Your task to perform on an android device: Go to location settings Image 0: 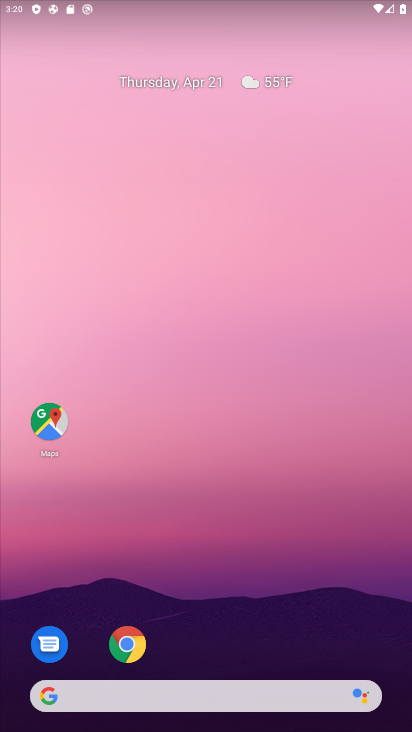
Step 0: drag from (215, 669) to (127, 70)
Your task to perform on an android device: Go to location settings Image 1: 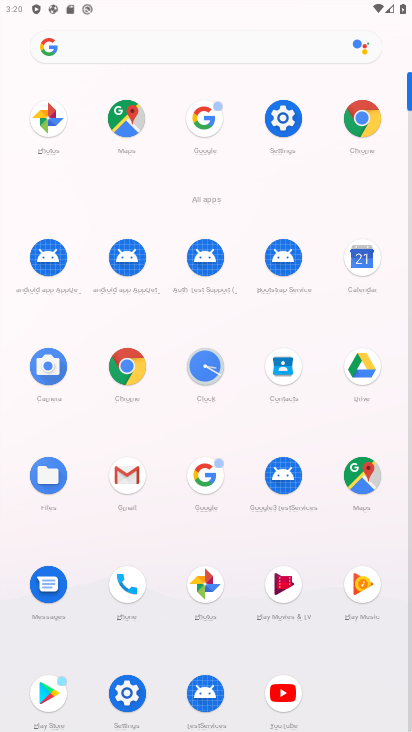
Step 1: click (277, 121)
Your task to perform on an android device: Go to location settings Image 2: 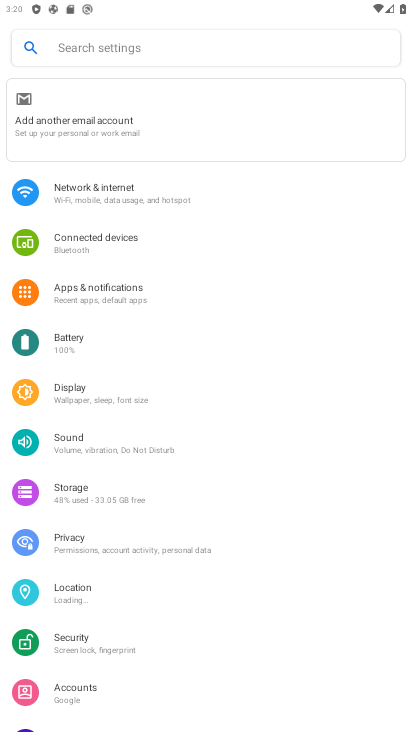
Step 2: click (75, 595)
Your task to perform on an android device: Go to location settings Image 3: 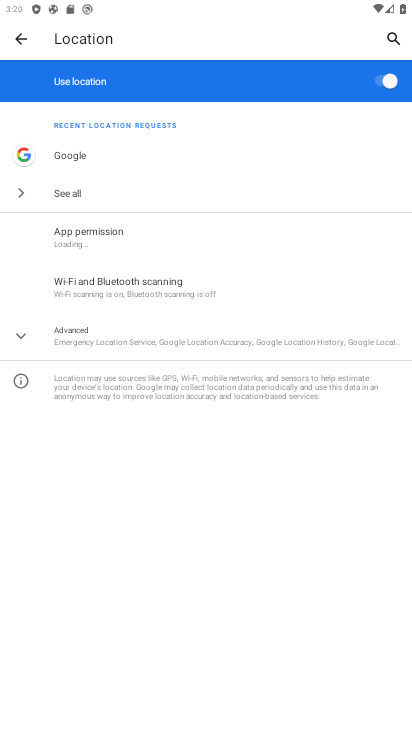
Step 3: click (92, 331)
Your task to perform on an android device: Go to location settings Image 4: 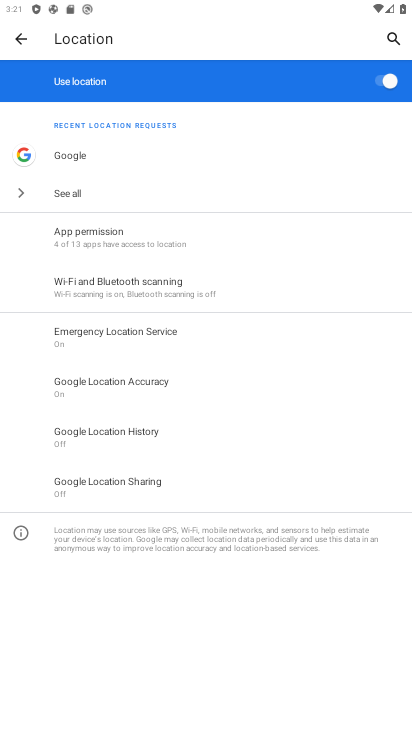
Step 4: task complete